Your task to perform on an android device: Is it going to rain today? Image 0: 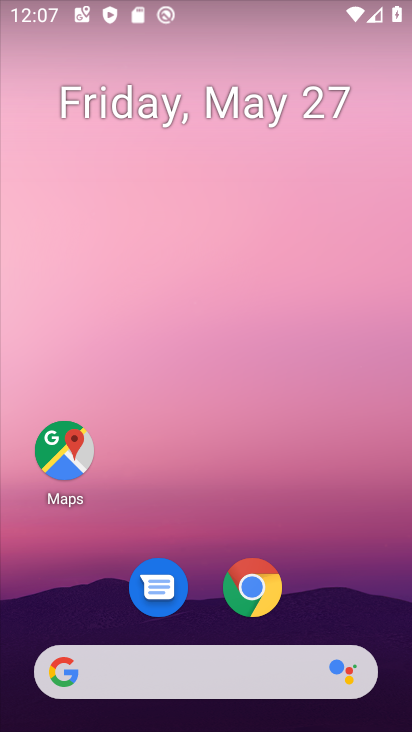
Step 0: click (125, 668)
Your task to perform on an android device: Is it going to rain today? Image 1: 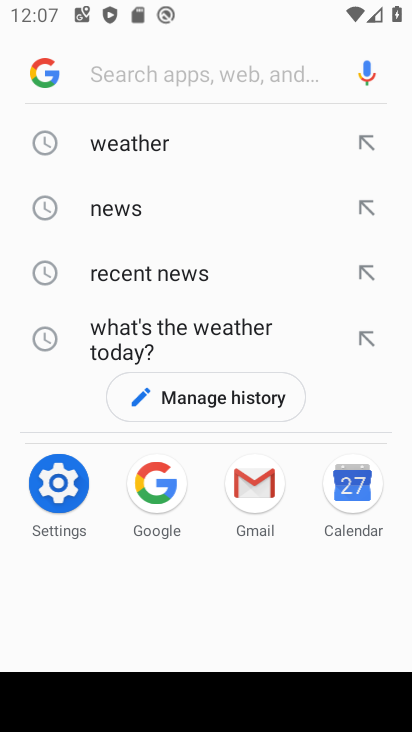
Step 1: type "weather today"
Your task to perform on an android device: Is it going to rain today? Image 2: 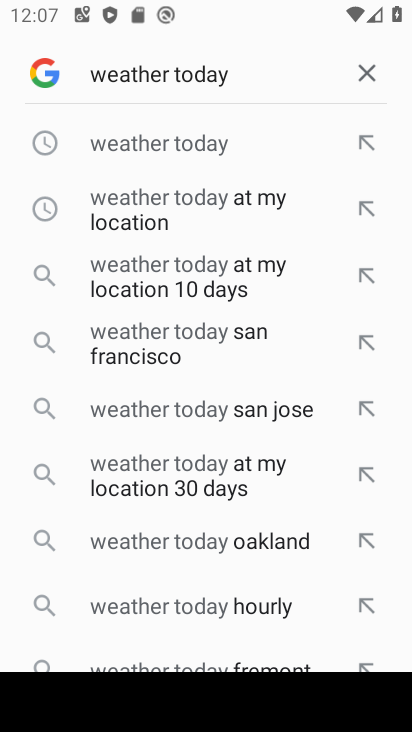
Step 2: click (194, 133)
Your task to perform on an android device: Is it going to rain today? Image 3: 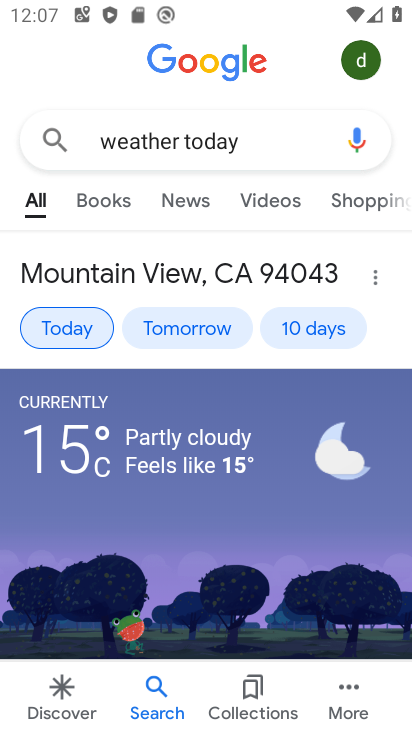
Step 3: task complete